Your task to perform on an android device: check storage Image 0: 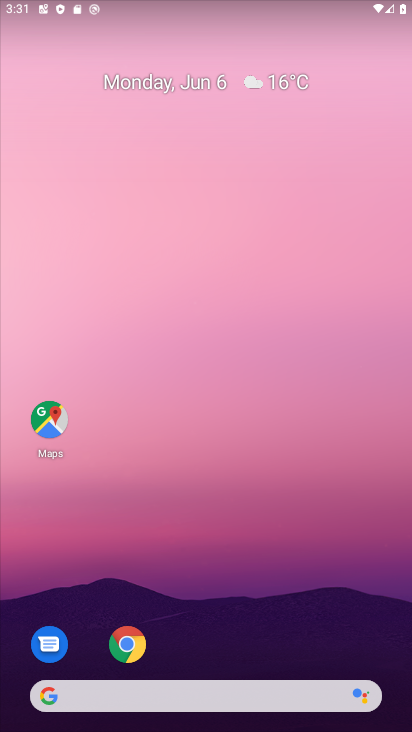
Step 0: drag from (238, 609) to (183, 22)
Your task to perform on an android device: check storage Image 1: 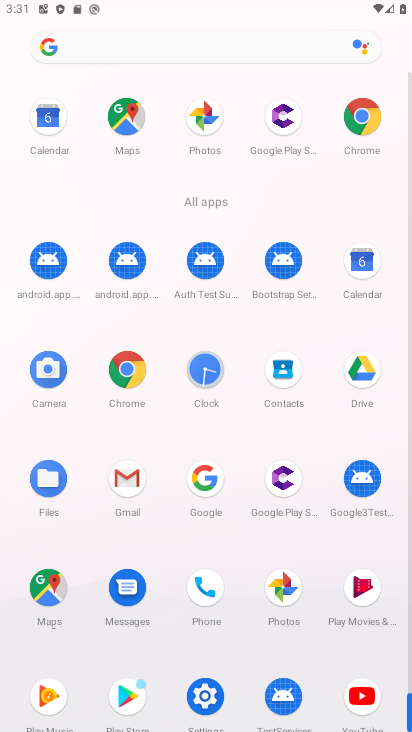
Step 1: click (205, 692)
Your task to perform on an android device: check storage Image 2: 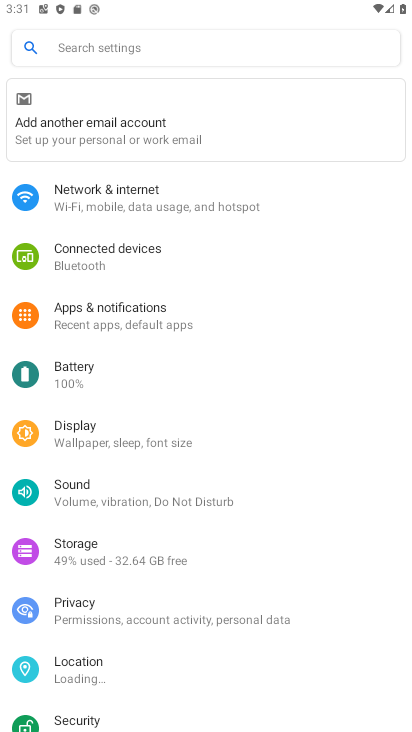
Step 2: drag from (189, 625) to (194, 282)
Your task to perform on an android device: check storage Image 3: 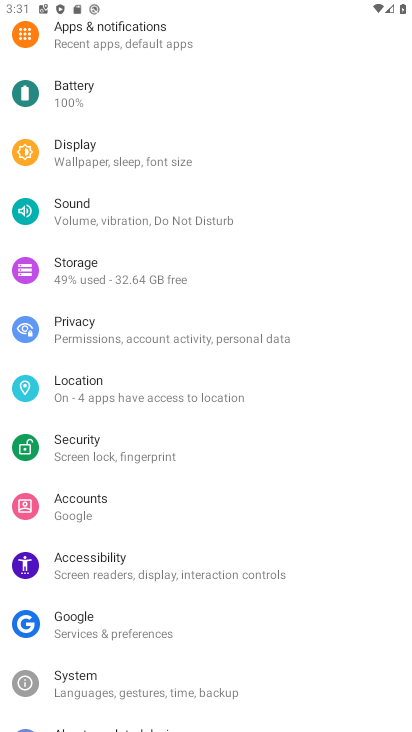
Step 3: drag from (197, 588) to (236, 204)
Your task to perform on an android device: check storage Image 4: 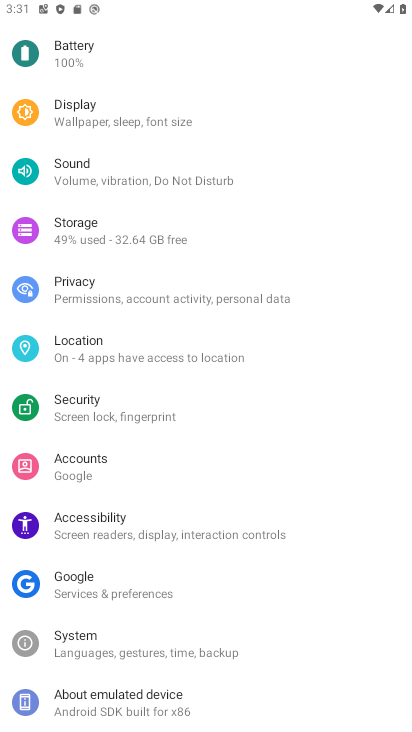
Step 4: drag from (129, 111) to (140, 492)
Your task to perform on an android device: check storage Image 5: 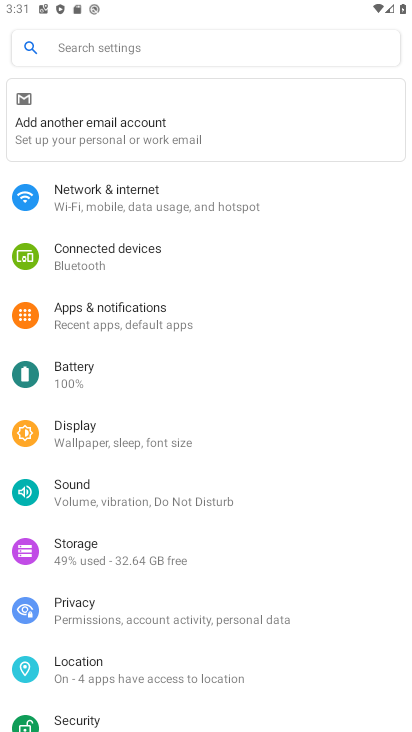
Step 5: click (100, 539)
Your task to perform on an android device: check storage Image 6: 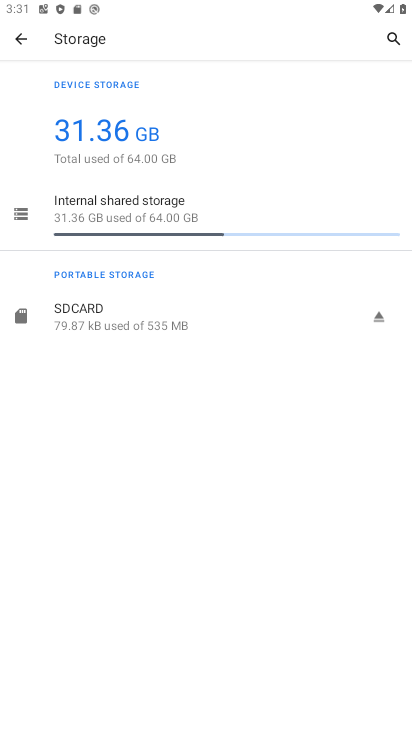
Step 6: task complete